Your task to perform on an android device: Search for Mexican restaurants on Maps Image 0: 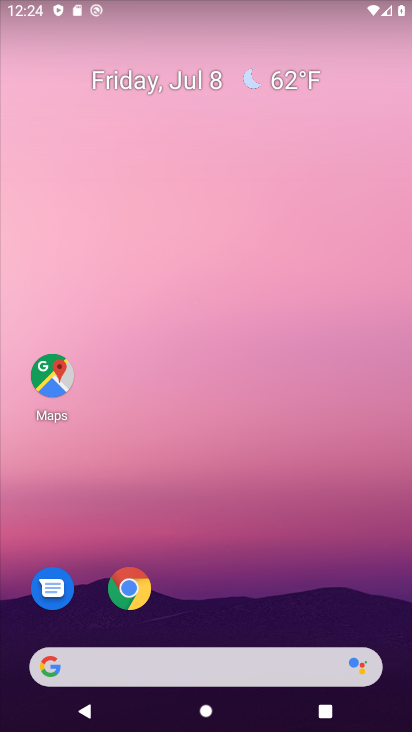
Step 0: drag from (179, 604) to (183, 3)
Your task to perform on an android device: Search for Mexican restaurants on Maps Image 1: 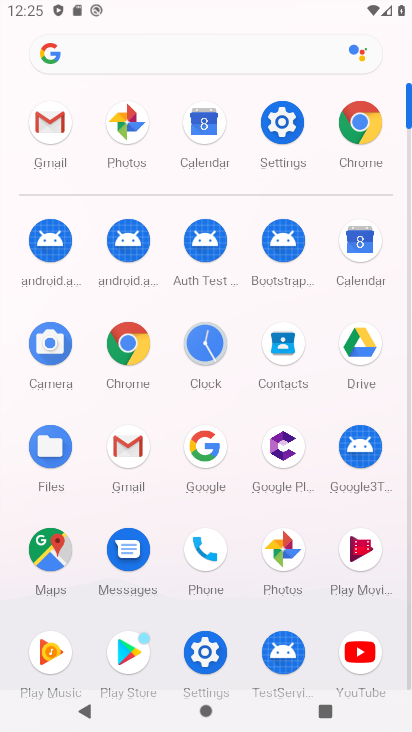
Step 1: click (54, 539)
Your task to perform on an android device: Search for Mexican restaurants on Maps Image 2: 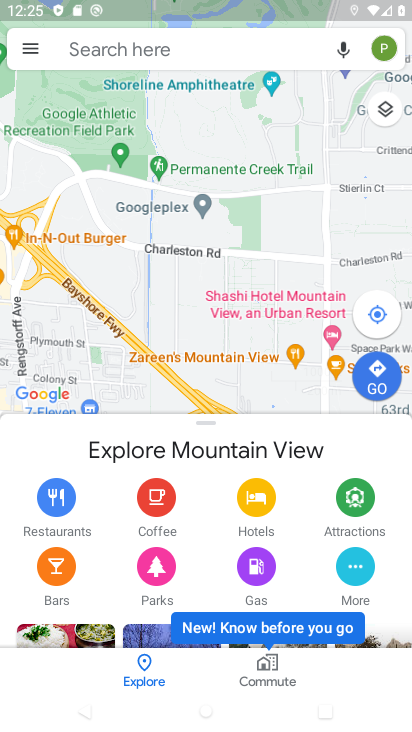
Step 2: click (119, 43)
Your task to perform on an android device: Search for Mexican restaurants on Maps Image 3: 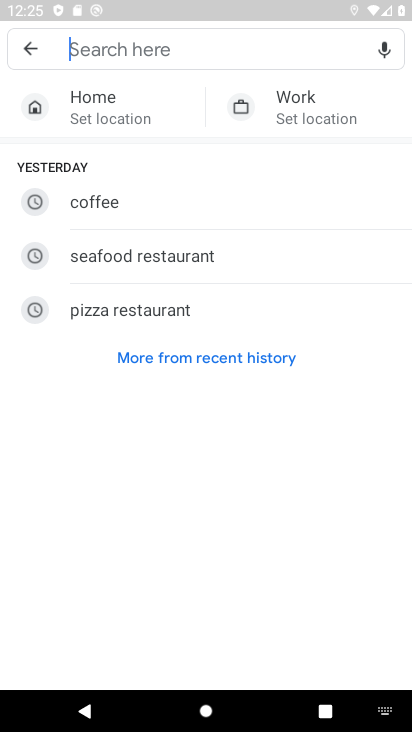
Step 3: type "mexican restaurants"
Your task to perform on an android device: Search for Mexican restaurants on Maps Image 4: 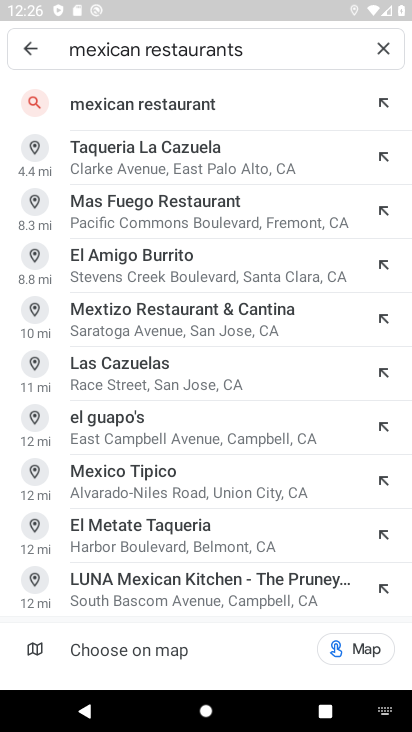
Step 4: click (164, 98)
Your task to perform on an android device: Search for Mexican restaurants on Maps Image 5: 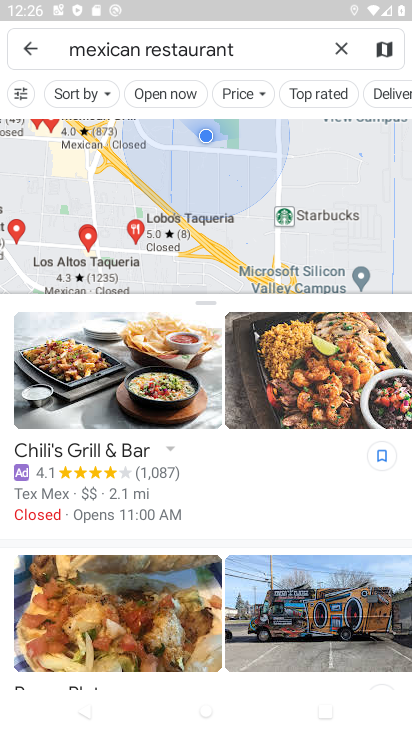
Step 5: task complete